Your task to perform on an android device: turn on the 24-hour format for clock Image 0: 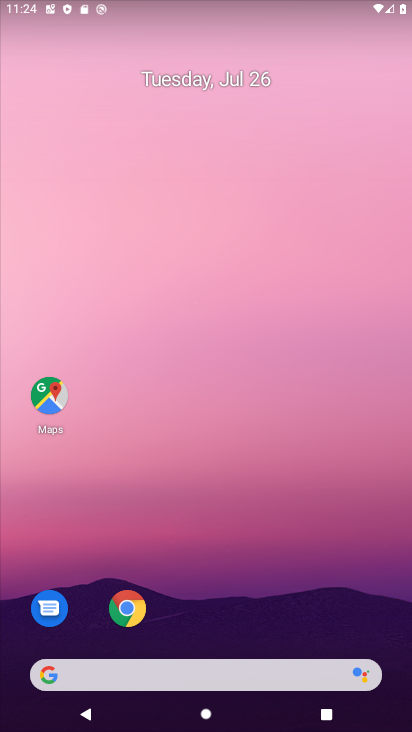
Step 0: drag from (248, 615) to (228, 50)
Your task to perform on an android device: turn on the 24-hour format for clock Image 1: 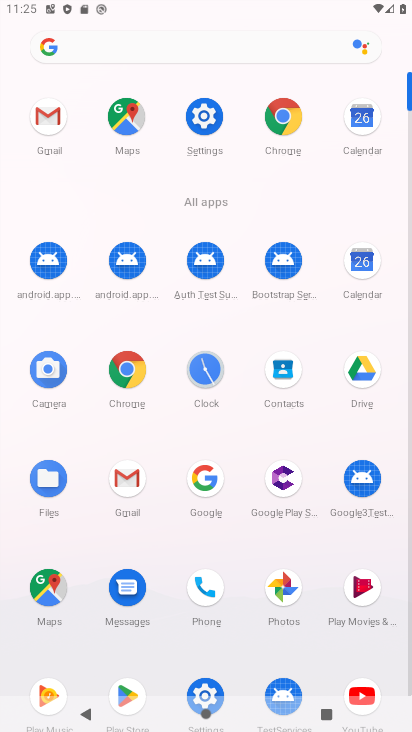
Step 1: click (209, 366)
Your task to perform on an android device: turn on the 24-hour format for clock Image 2: 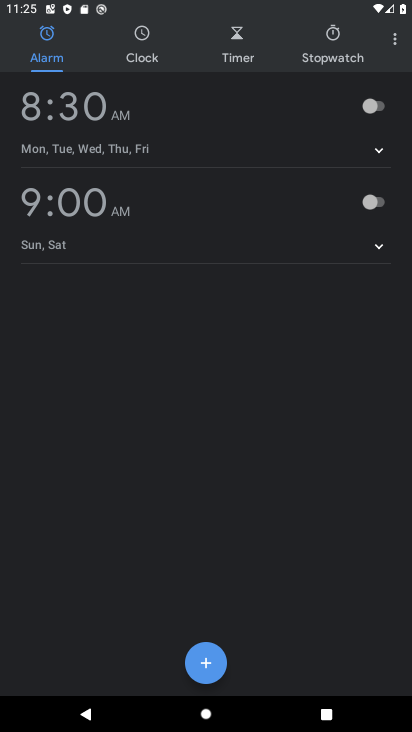
Step 2: click (389, 33)
Your task to perform on an android device: turn on the 24-hour format for clock Image 3: 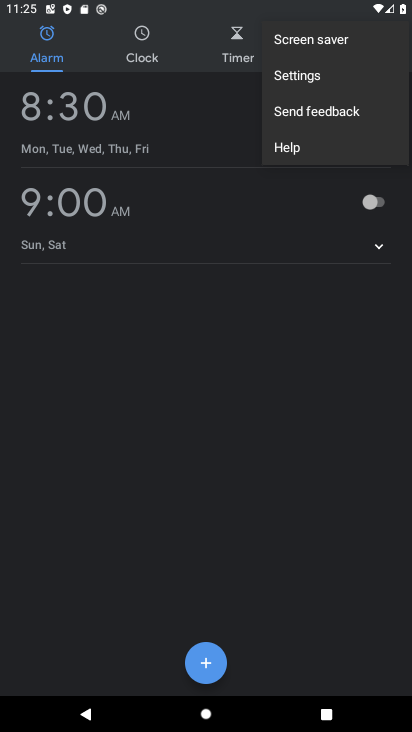
Step 3: click (323, 72)
Your task to perform on an android device: turn on the 24-hour format for clock Image 4: 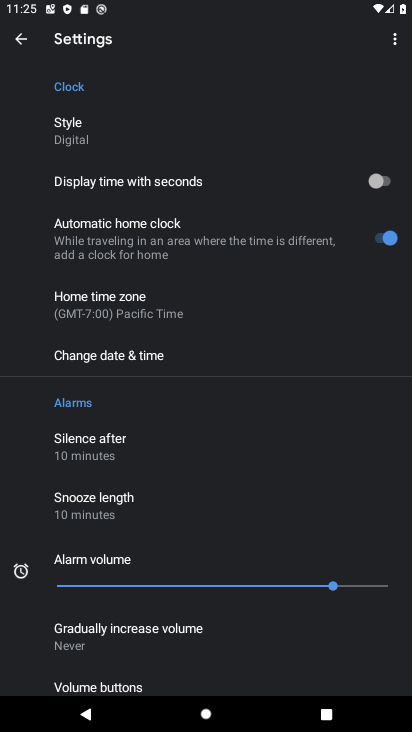
Step 4: click (169, 354)
Your task to perform on an android device: turn on the 24-hour format for clock Image 5: 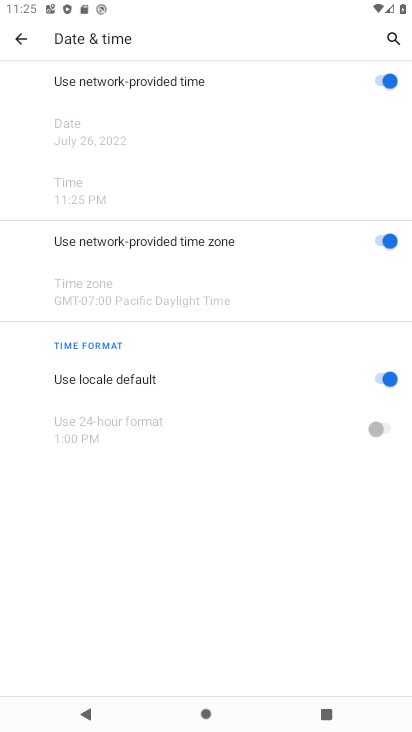
Step 5: click (383, 377)
Your task to perform on an android device: turn on the 24-hour format for clock Image 6: 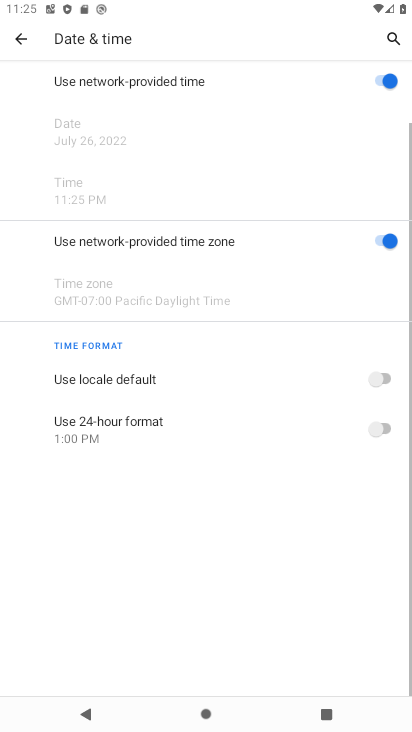
Step 6: click (379, 429)
Your task to perform on an android device: turn on the 24-hour format for clock Image 7: 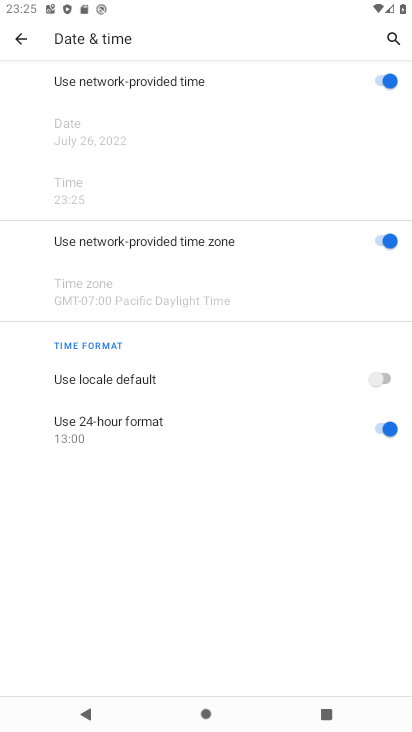
Step 7: task complete